Your task to perform on an android device: see creations saved in the google photos Image 0: 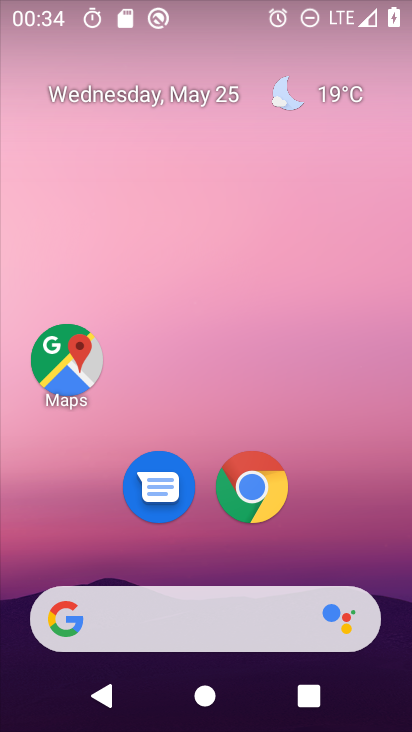
Step 0: drag from (368, 532) to (395, 19)
Your task to perform on an android device: see creations saved in the google photos Image 1: 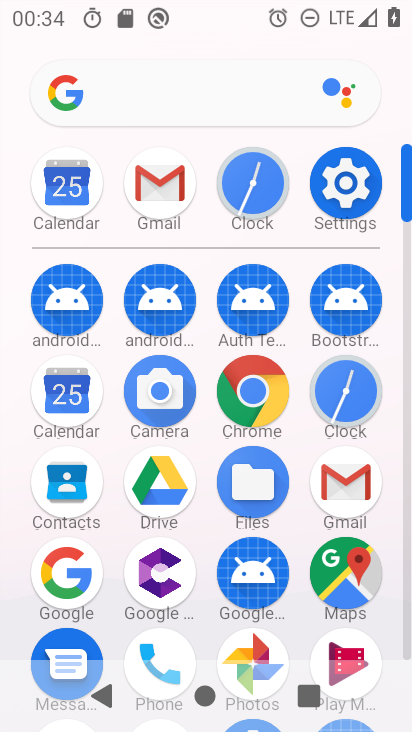
Step 1: click (258, 641)
Your task to perform on an android device: see creations saved in the google photos Image 2: 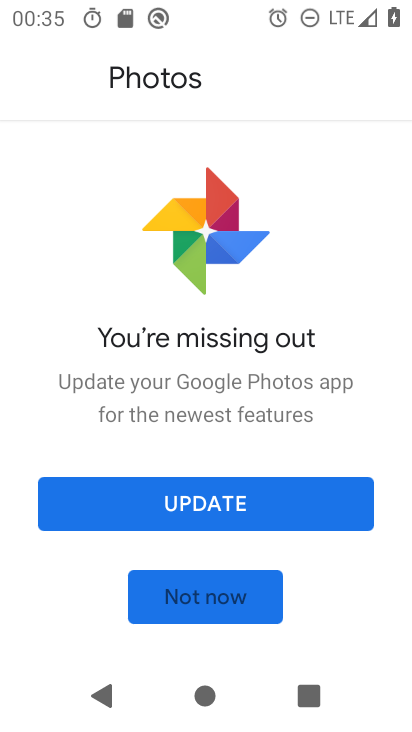
Step 2: click (184, 605)
Your task to perform on an android device: see creations saved in the google photos Image 3: 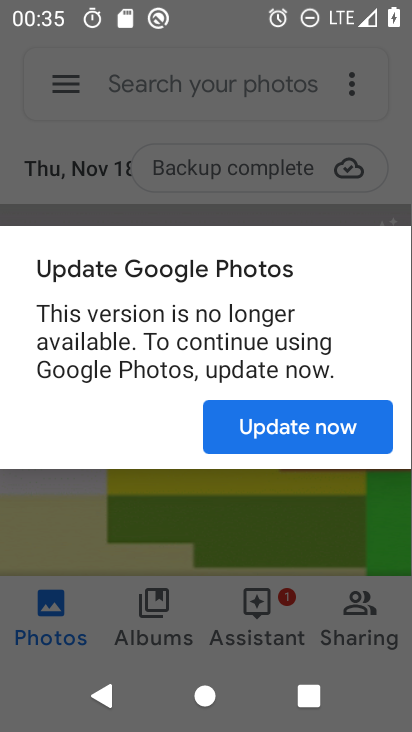
Step 3: click (314, 442)
Your task to perform on an android device: see creations saved in the google photos Image 4: 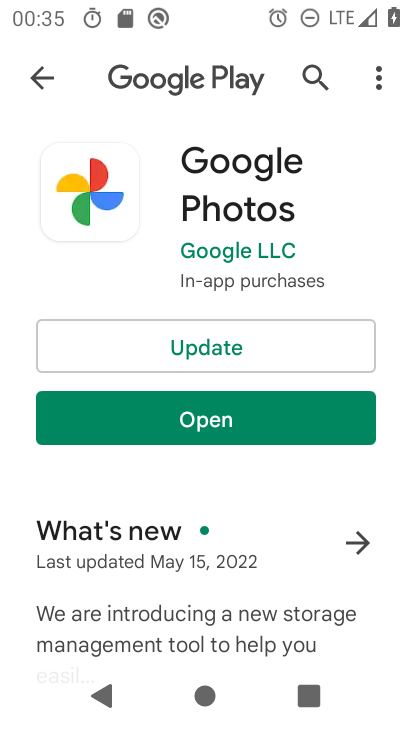
Step 4: click (226, 421)
Your task to perform on an android device: see creations saved in the google photos Image 5: 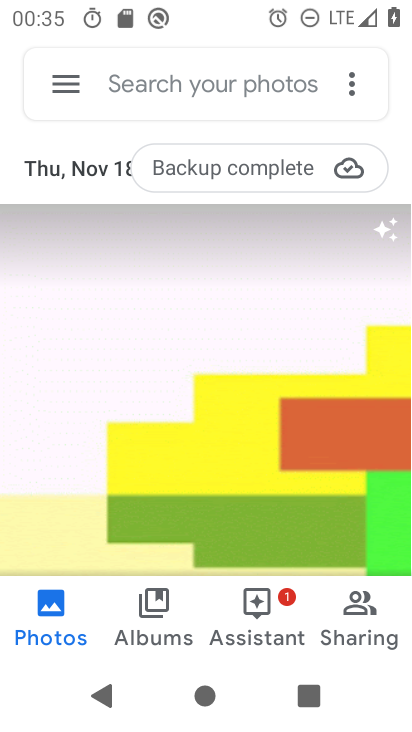
Step 5: click (128, 86)
Your task to perform on an android device: see creations saved in the google photos Image 6: 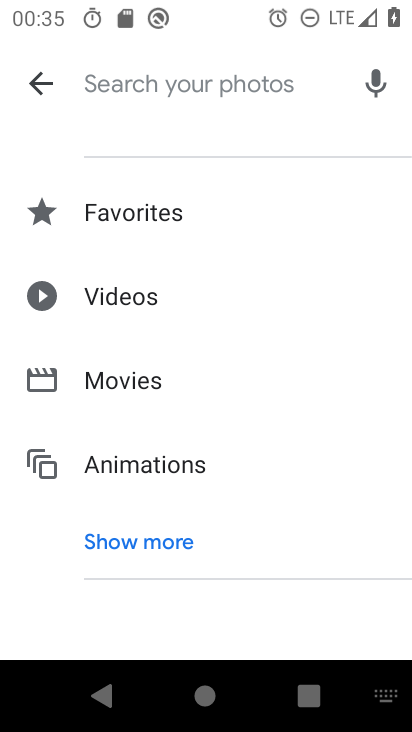
Step 6: click (136, 542)
Your task to perform on an android device: see creations saved in the google photos Image 7: 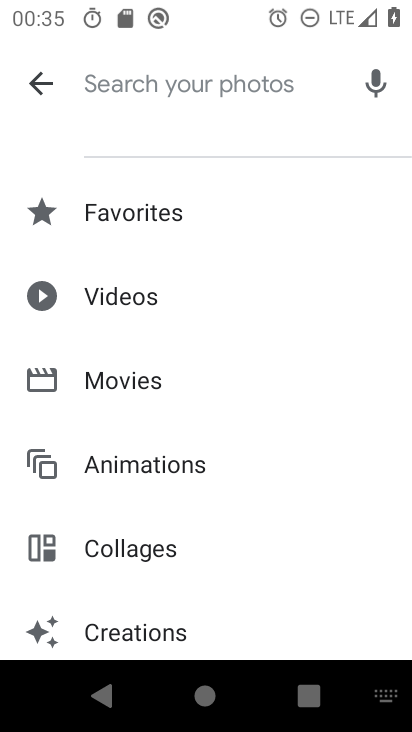
Step 7: click (152, 640)
Your task to perform on an android device: see creations saved in the google photos Image 8: 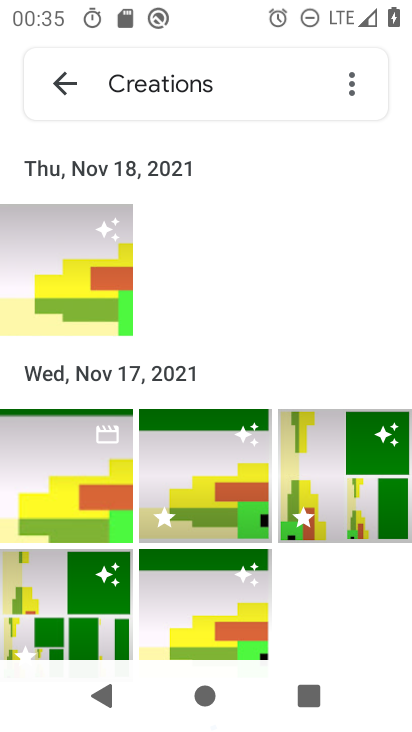
Step 8: task complete